Your task to perform on an android device: Open Reddit.com Image 0: 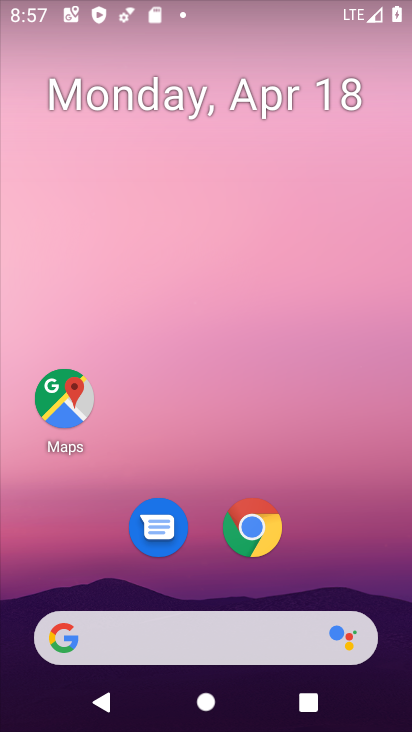
Step 0: drag from (325, 542) to (214, 8)
Your task to perform on an android device: Open Reddit.com Image 1: 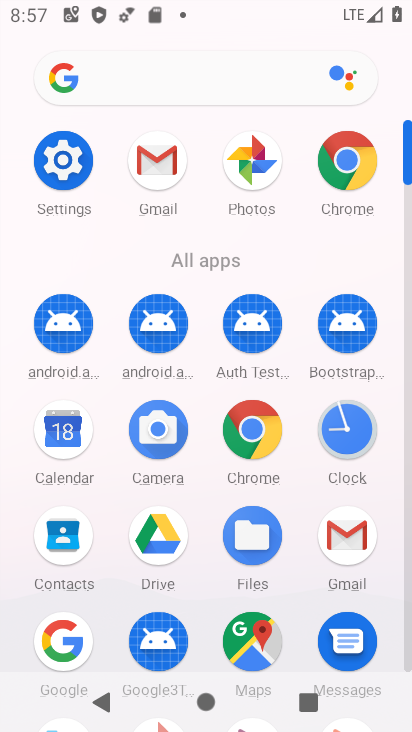
Step 1: click (346, 155)
Your task to perform on an android device: Open Reddit.com Image 2: 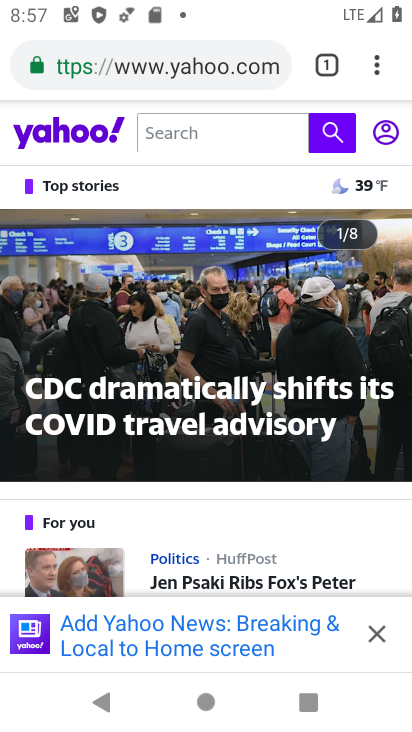
Step 2: click (154, 66)
Your task to perform on an android device: Open Reddit.com Image 3: 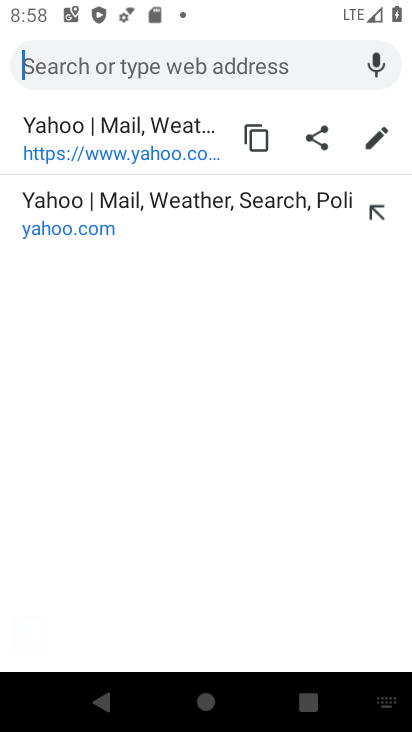
Step 3: type "Reddit.com"
Your task to perform on an android device: Open Reddit.com Image 4: 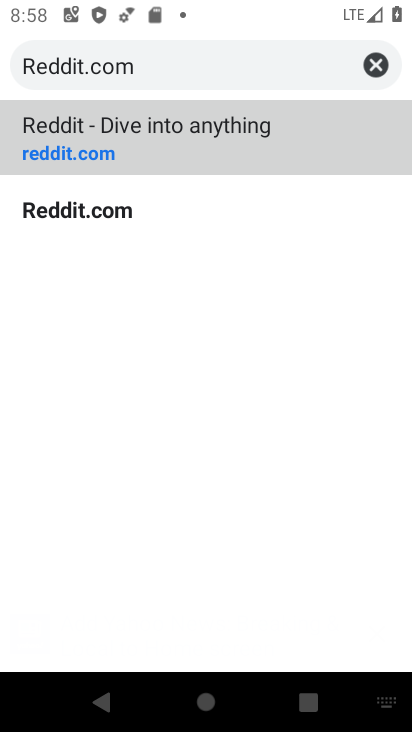
Step 4: click (99, 150)
Your task to perform on an android device: Open Reddit.com Image 5: 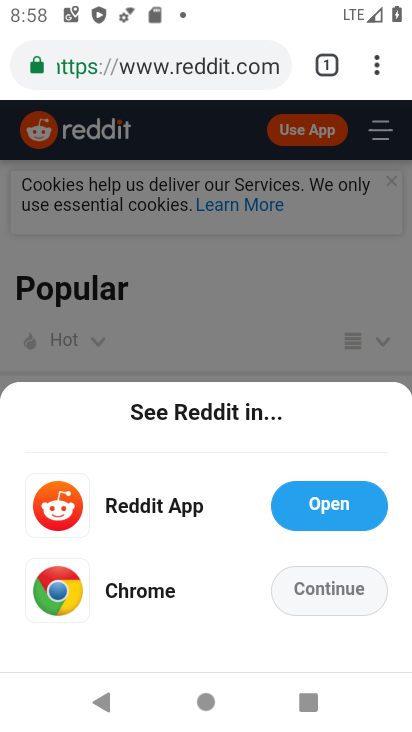
Step 5: task complete